Your task to perform on an android device: Show me productivity apps on the Play Store Image 0: 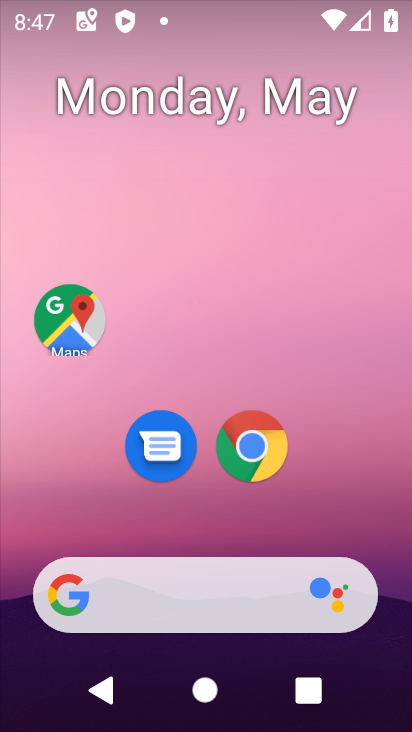
Step 0: press home button
Your task to perform on an android device: Show me productivity apps on the Play Store Image 1: 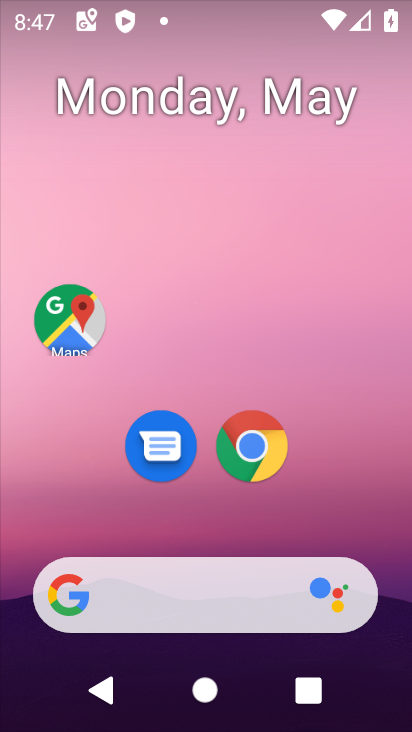
Step 1: drag from (210, 520) to (266, 111)
Your task to perform on an android device: Show me productivity apps on the Play Store Image 2: 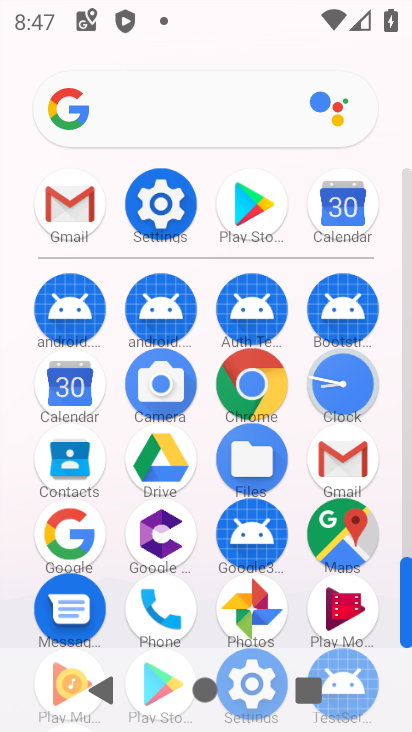
Step 2: click (249, 201)
Your task to perform on an android device: Show me productivity apps on the Play Store Image 3: 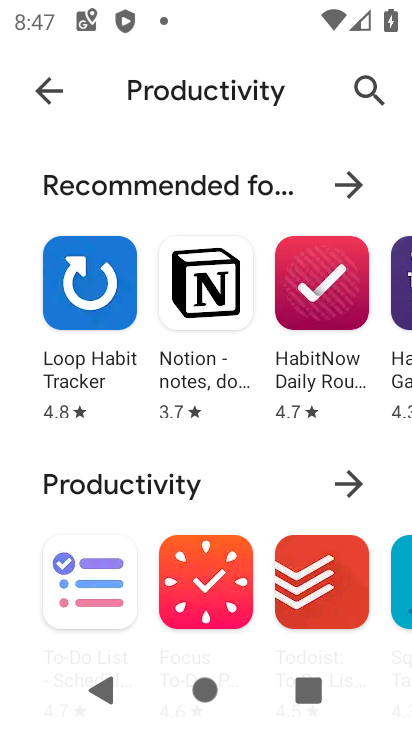
Step 3: task complete